Your task to perform on an android device: Go to location settings Image 0: 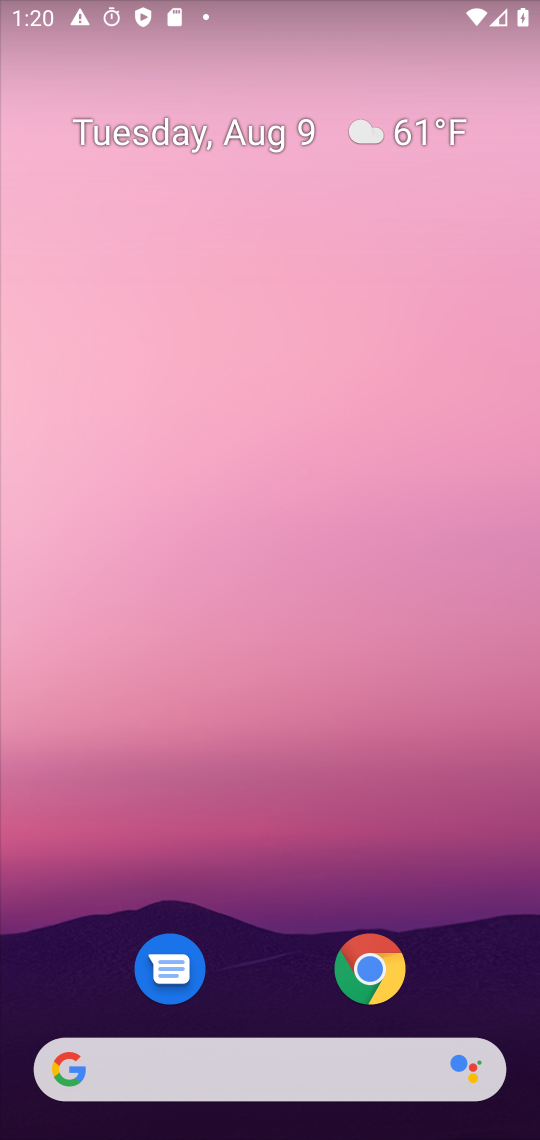
Step 0: press home button
Your task to perform on an android device: Go to location settings Image 1: 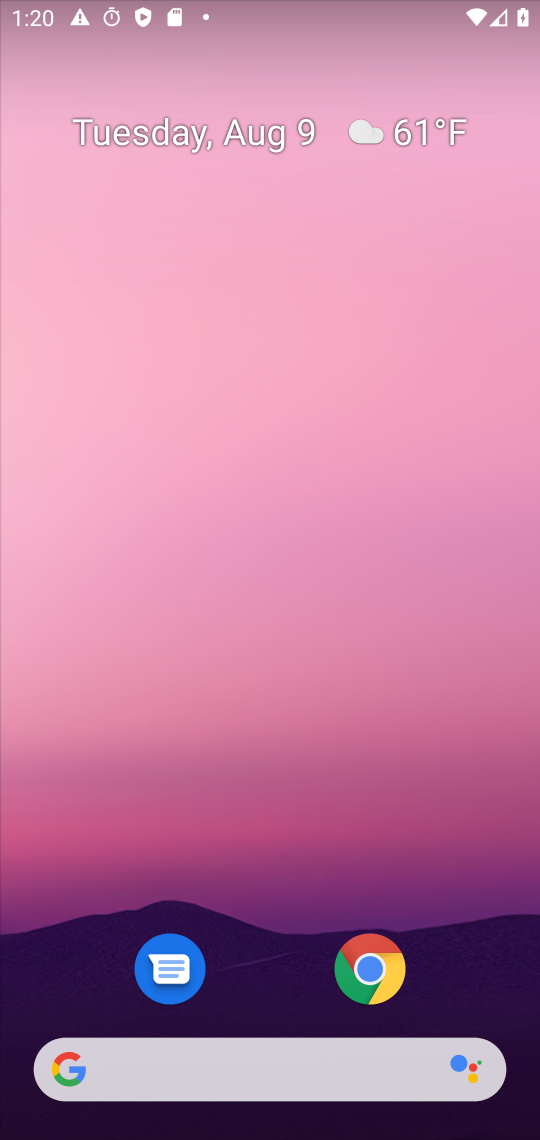
Step 1: drag from (279, 1085) to (288, 334)
Your task to perform on an android device: Go to location settings Image 2: 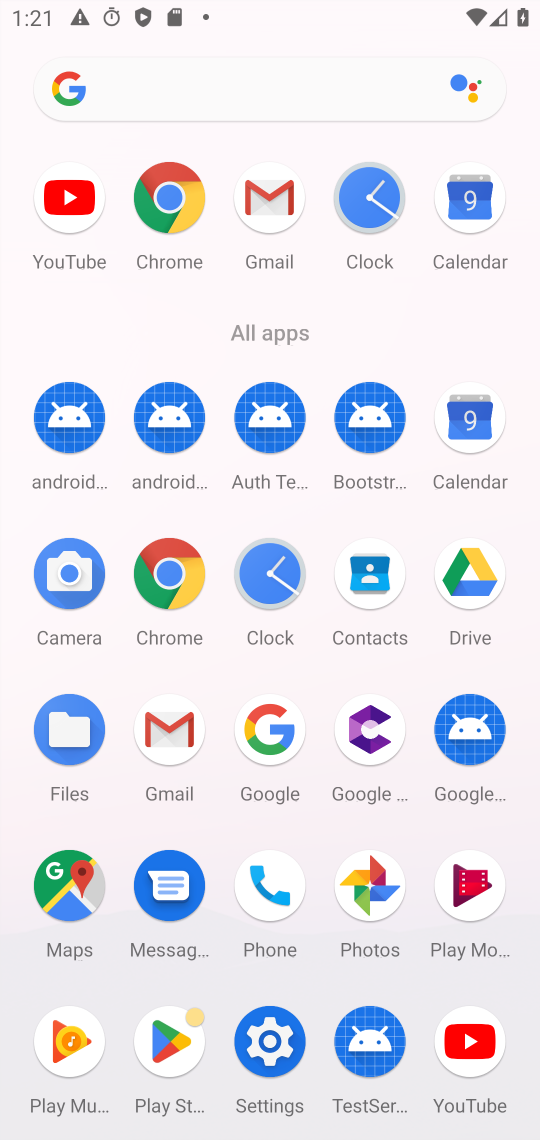
Step 2: click (260, 1044)
Your task to perform on an android device: Go to location settings Image 3: 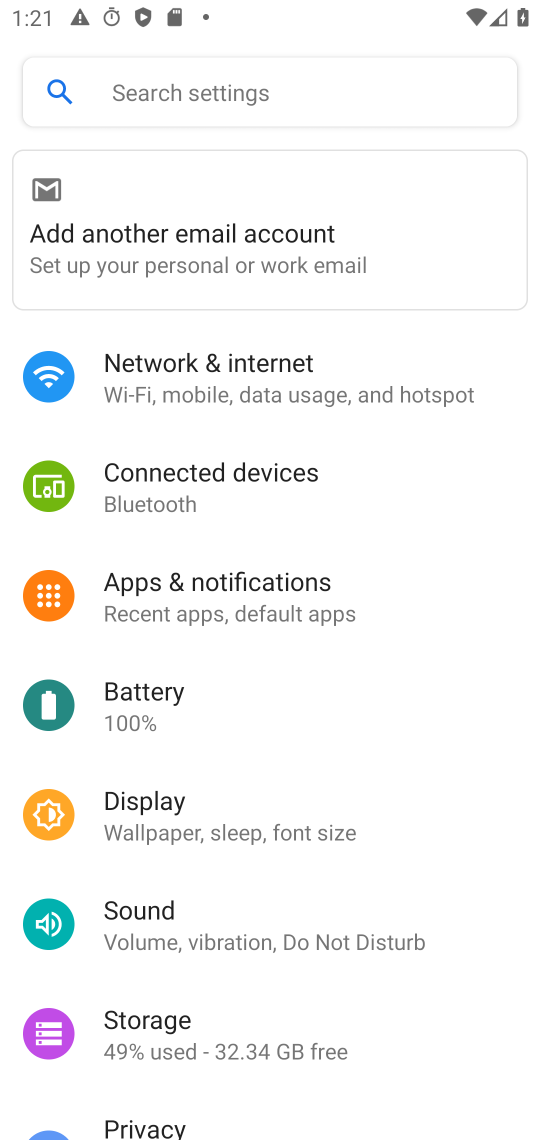
Step 3: click (255, 104)
Your task to perform on an android device: Go to location settings Image 4: 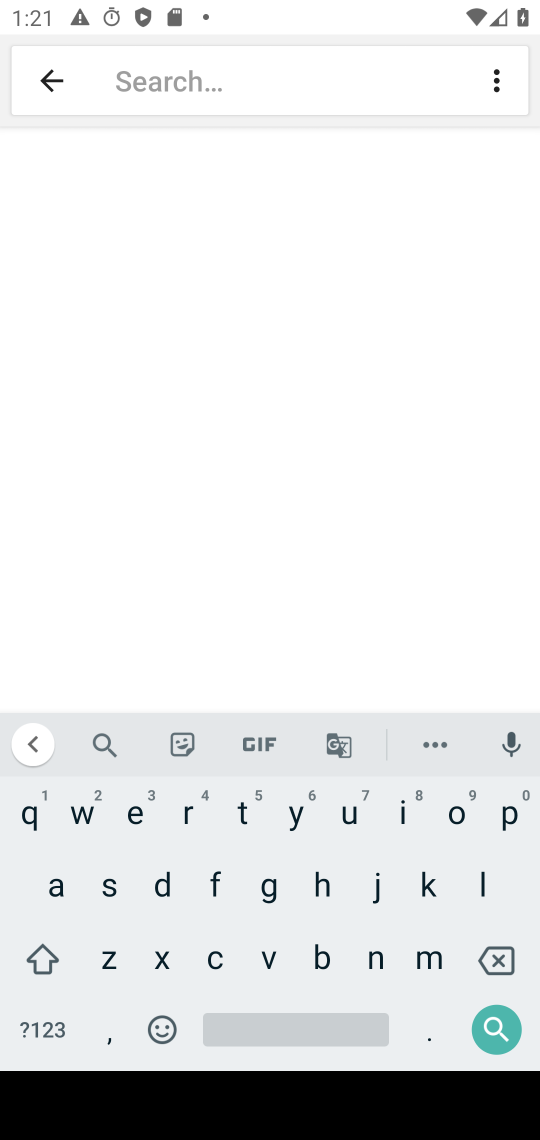
Step 4: click (479, 896)
Your task to perform on an android device: Go to location settings Image 5: 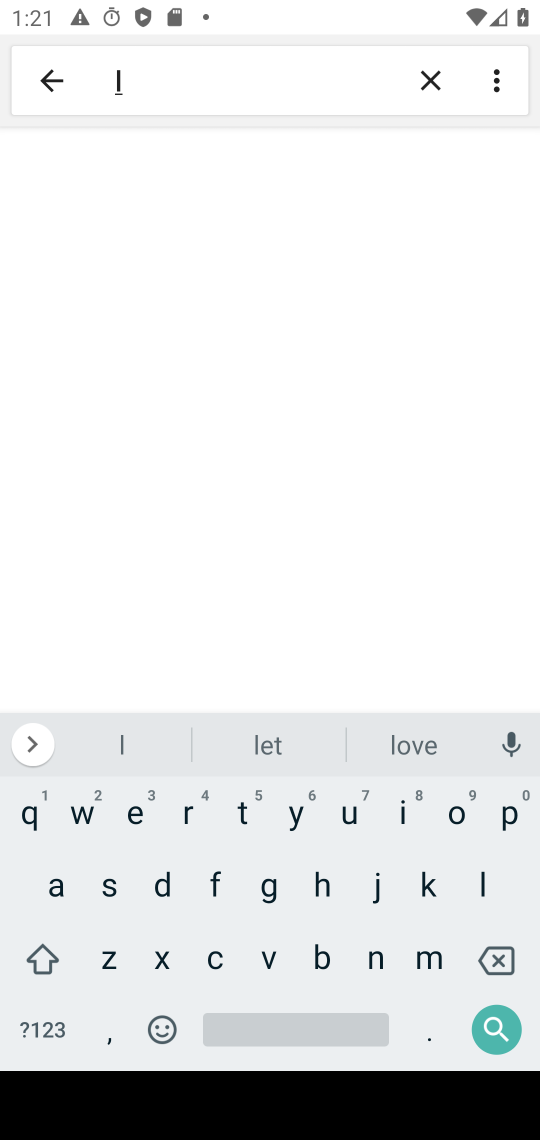
Step 5: click (454, 813)
Your task to perform on an android device: Go to location settings Image 6: 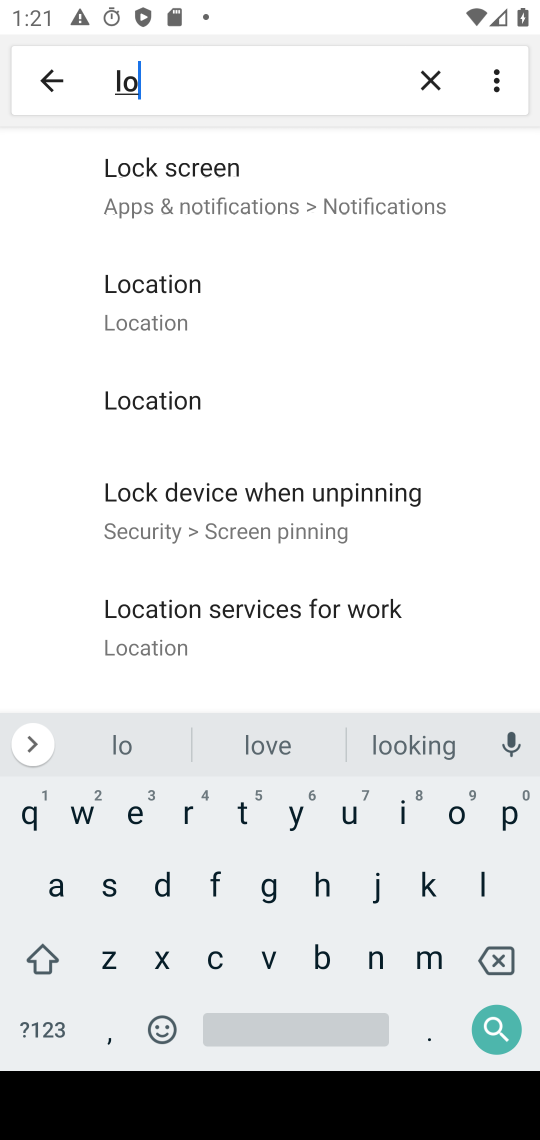
Step 6: click (186, 313)
Your task to perform on an android device: Go to location settings Image 7: 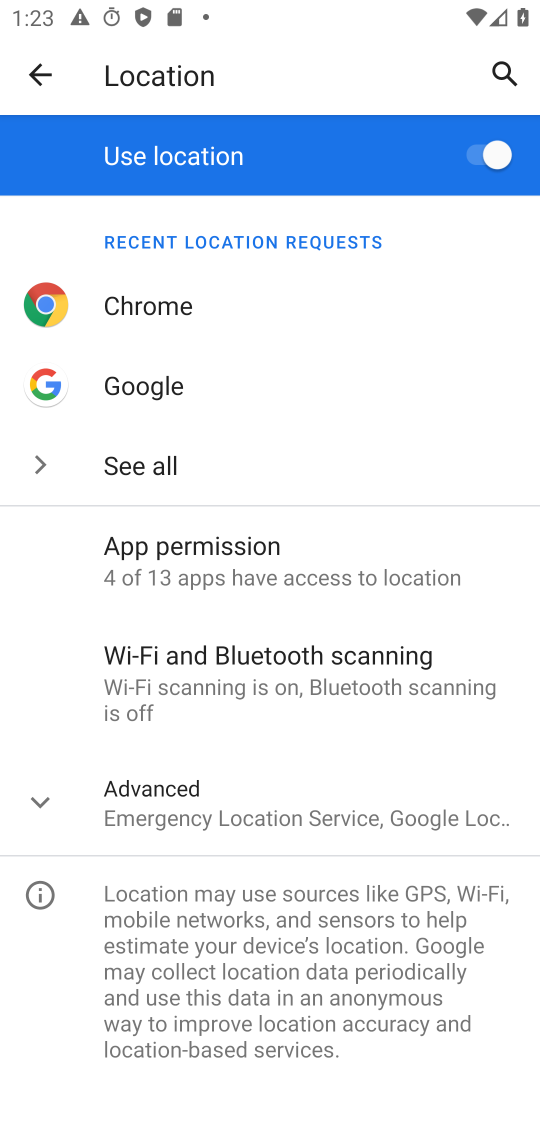
Step 7: task complete